Your task to perform on an android device: empty trash in google photos Image 0: 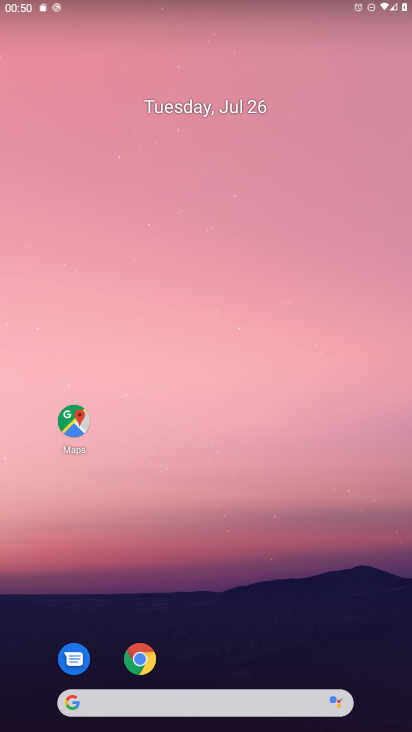
Step 0: drag from (284, 574) to (281, 27)
Your task to perform on an android device: empty trash in google photos Image 1: 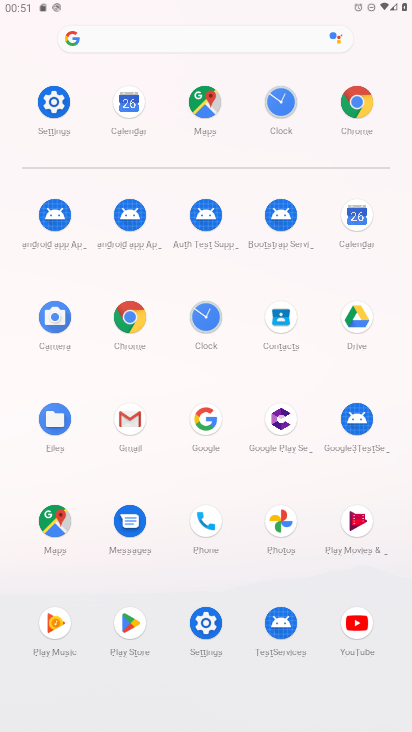
Step 1: click (275, 516)
Your task to perform on an android device: empty trash in google photos Image 2: 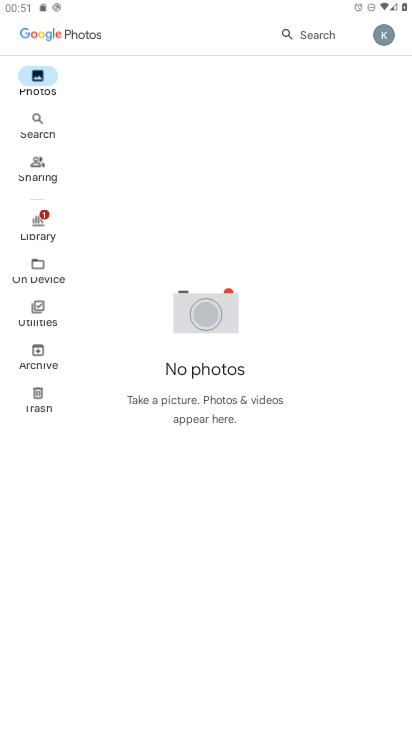
Step 2: click (40, 62)
Your task to perform on an android device: empty trash in google photos Image 3: 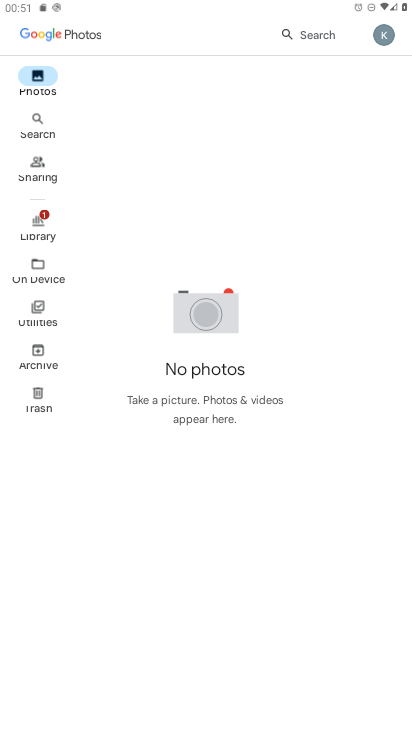
Step 3: click (383, 28)
Your task to perform on an android device: empty trash in google photos Image 4: 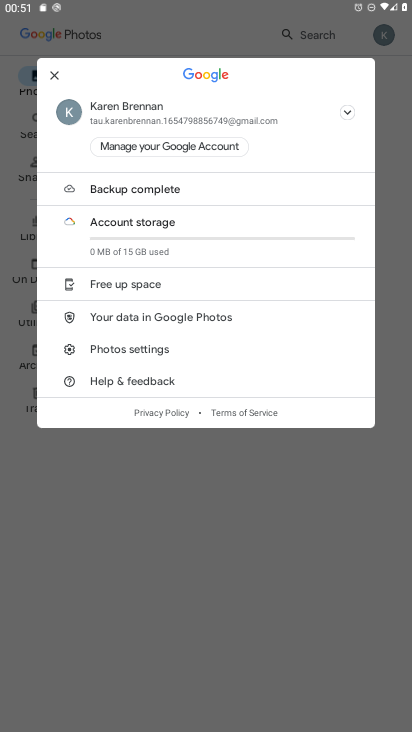
Step 4: click (289, 559)
Your task to perform on an android device: empty trash in google photos Image 5: 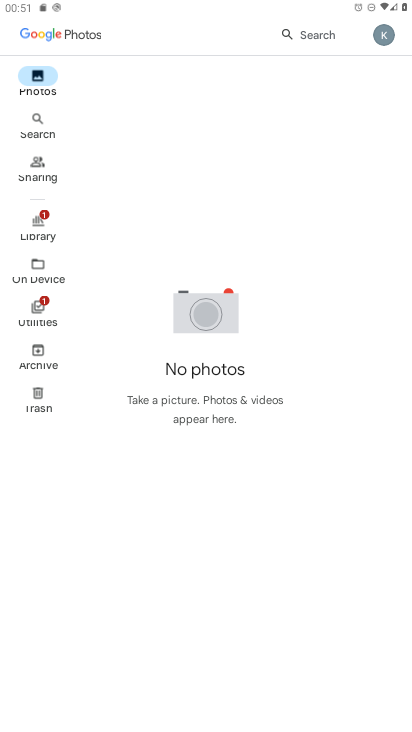
Step 5: click (36, 399)
Your task to perform on an android device: empty trash in google photos Image 6: 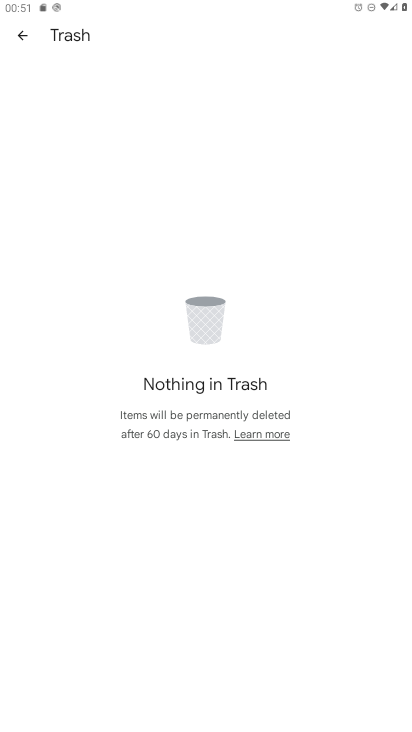
Step 6: task complete